Your task to perform on an android device: What's the weather going to be tomorrow? Image 0: 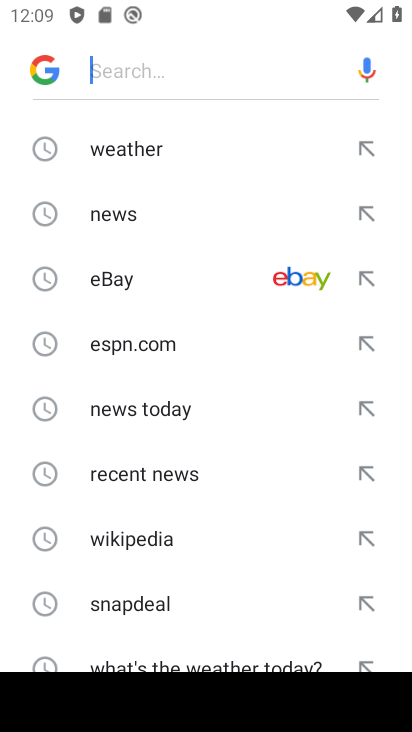
Step 0: drag from (184, 553) to (216, 129)
Your task to perform on an android device: What's the weather going to be tomorrow? Image 1: 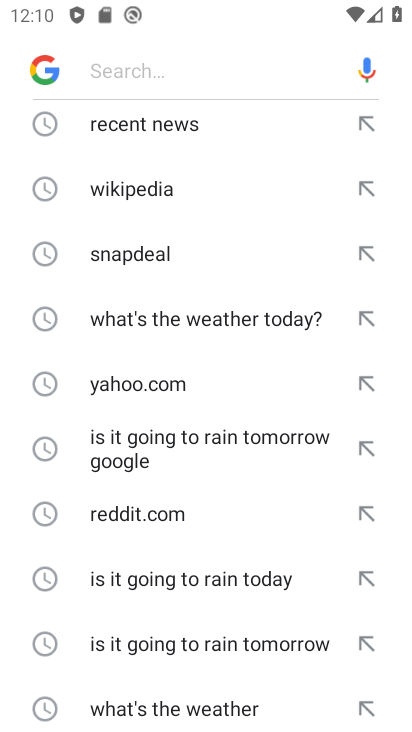
Step 1: drag from (220, 310) to (221, 199)
Your task to perform on an android device: What's the weather going to be tomorrow? Image 2: 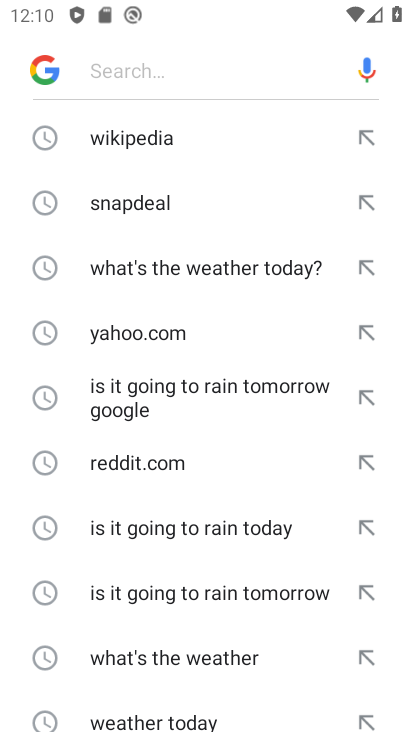
Step 2: click (149, 65)
Your task to perform on an android device: What's the weather going to be tomorrow? Image 3: 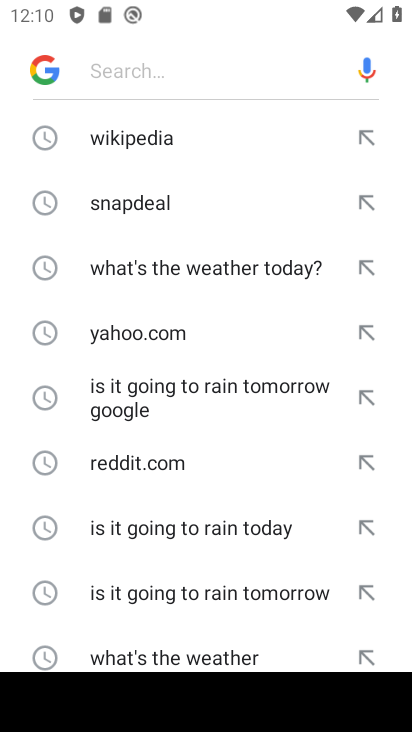
Step 3: type "whats the weather going to be tomorrow?"
Your task to perform on an android device: What's the weather going to be tomorrow? Image 4: 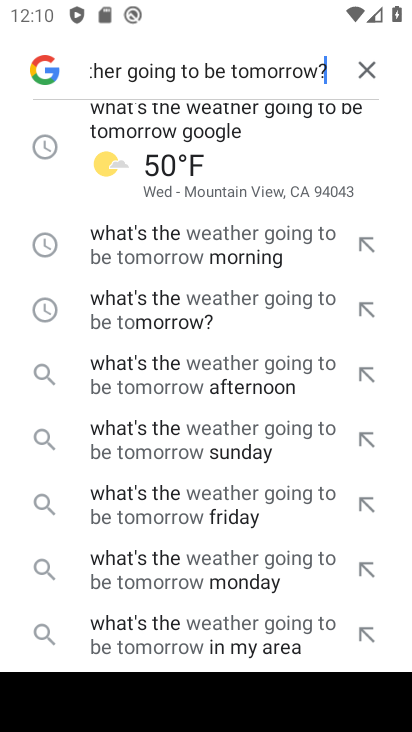
Step 4: click (196, 126)
Your task to perform on an android device: What's the weather going to be tomorrow? Image 5: 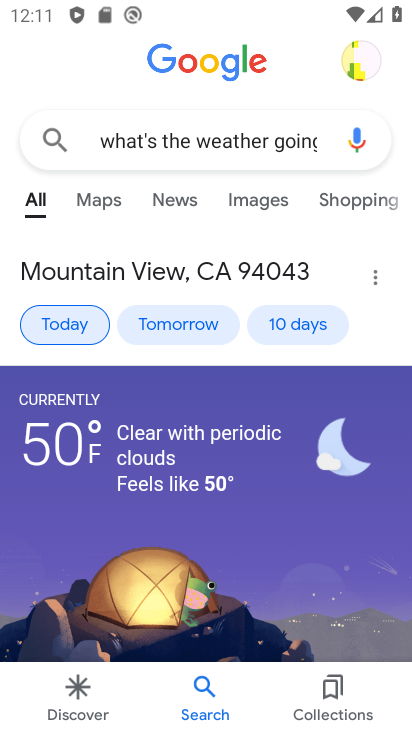
Step 5: task complete